Your task to perform on an android device: Open the calendar app, open the side menu, and click the "Day" option Image 0: 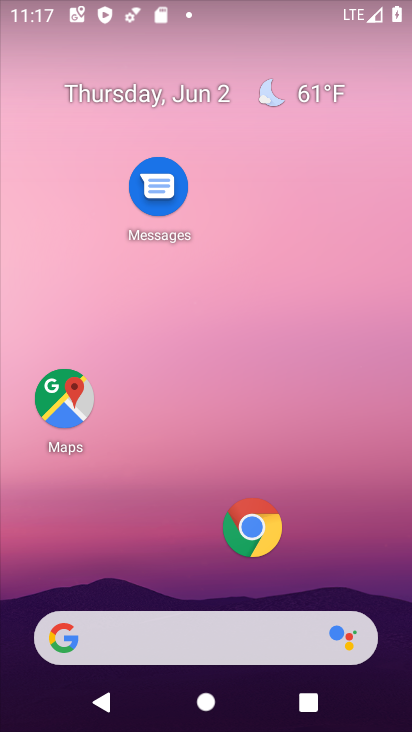
Step 0: press home button
Your task to perform on an android device: Open the calendar app, open the side menu, and click the "Day" option Image 1: 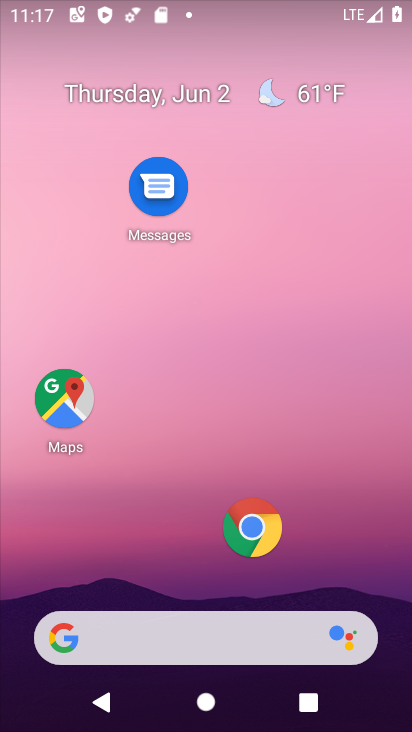
Step 1: drag from (200, 582) to (240, 19)
Your task to perform on an android device: Open the calendar app, open the side menu, and click the "Day" option Image 2: 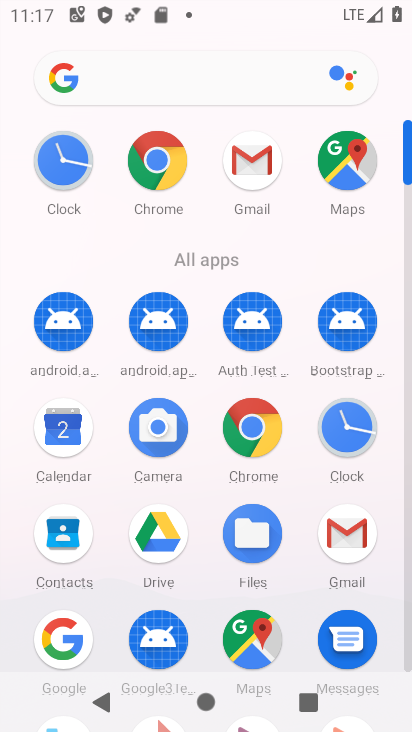
Step 2: click (62, 426)
Your task to perform on an android device: Open the calendar app, open the side menu, and click the "Day" option Image 3: 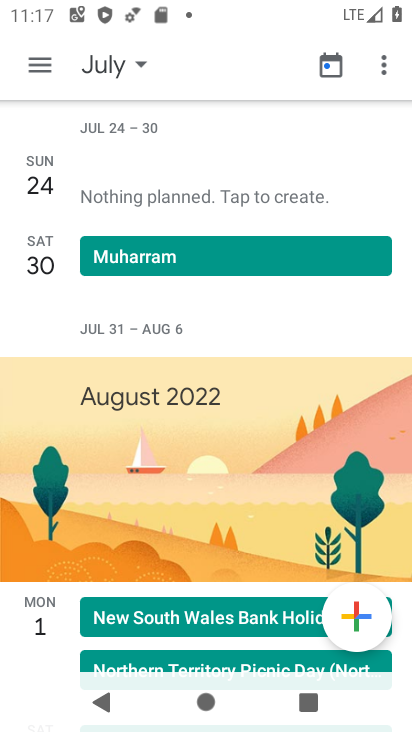
Step 3: click (35, 61)
Your task to perform on an android device: Open the calendar app, open the side menu, and click the "Day" option Image 4: 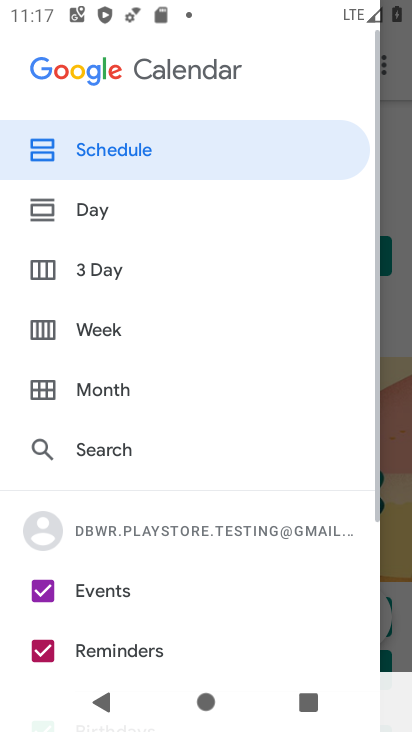
Step 4: click (84, 208)
Your task to perform on an android device: Open the calendar app, open the side menu, and click the "Day" option Image 5: 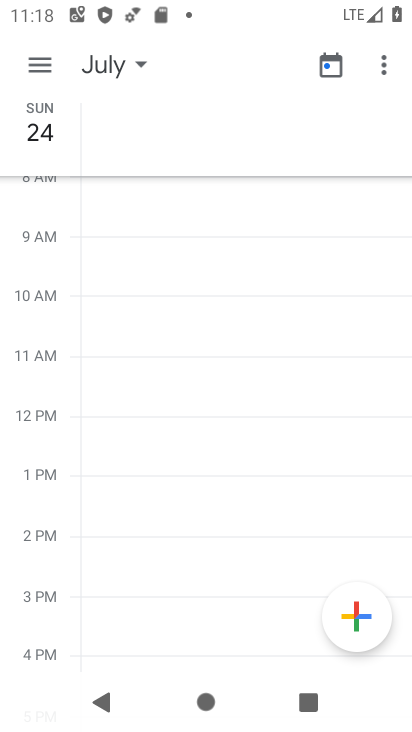
Step 5: task complete